Your task to perform on an android device: check out phone information Image 0: 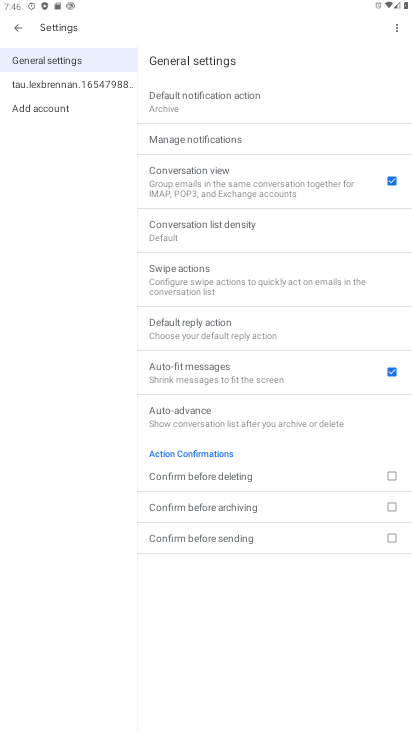
Step 0: drag from (372, 648) to (169, 141)
Your task to perform on an android device: check out phone information Image 1: 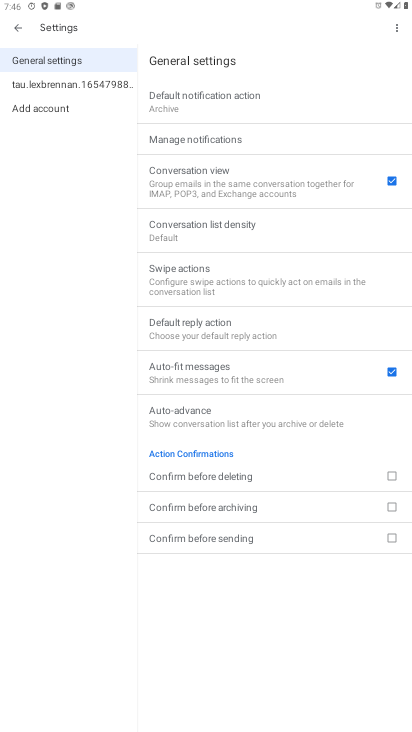
Step 1: press home button
Your task to perform on an android device: check out phone information Image 2: 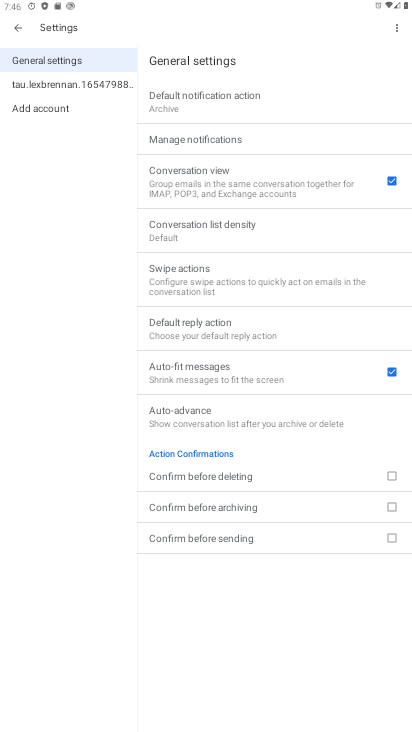
Step 2: drag from (372, 642) to (154, 1)
Your task to perform on an android device: check out phone information Image 3: 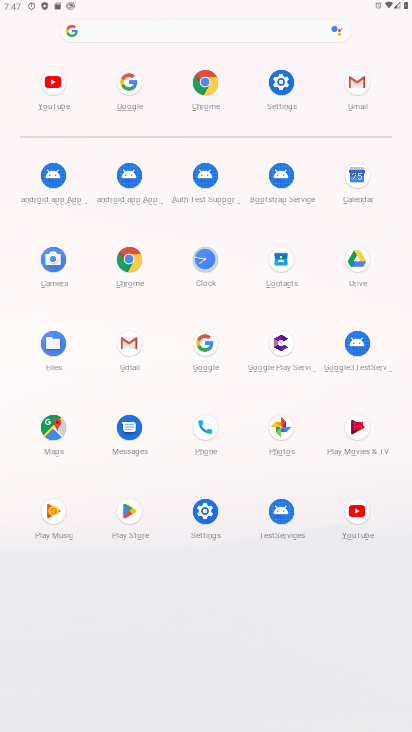
Step 3: click (207, 513)
Your task to perform on an android device: check out phone information Image 4: 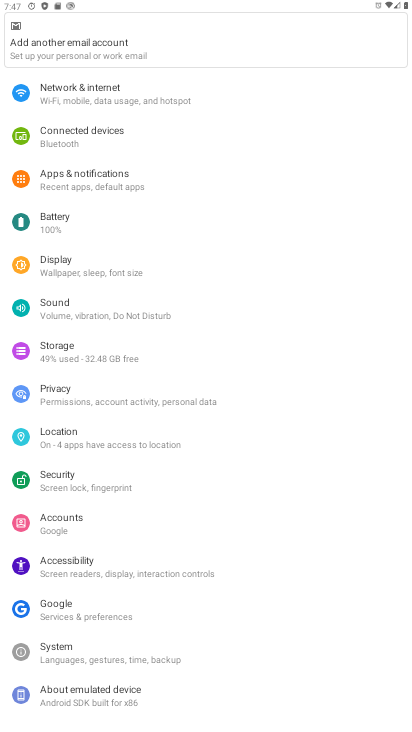
Step 4: task complete